Your task to perform on an android device: Go to settings Image 0: 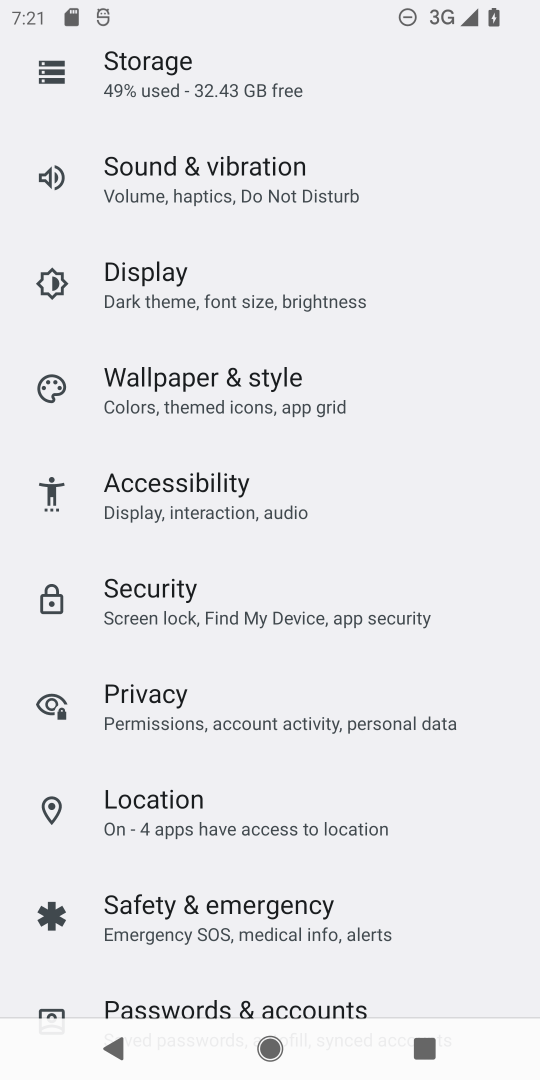
Step 0: drag from (231, 631) to (158, 140)
Your task to perform on an android device: Go to settings Image 1: 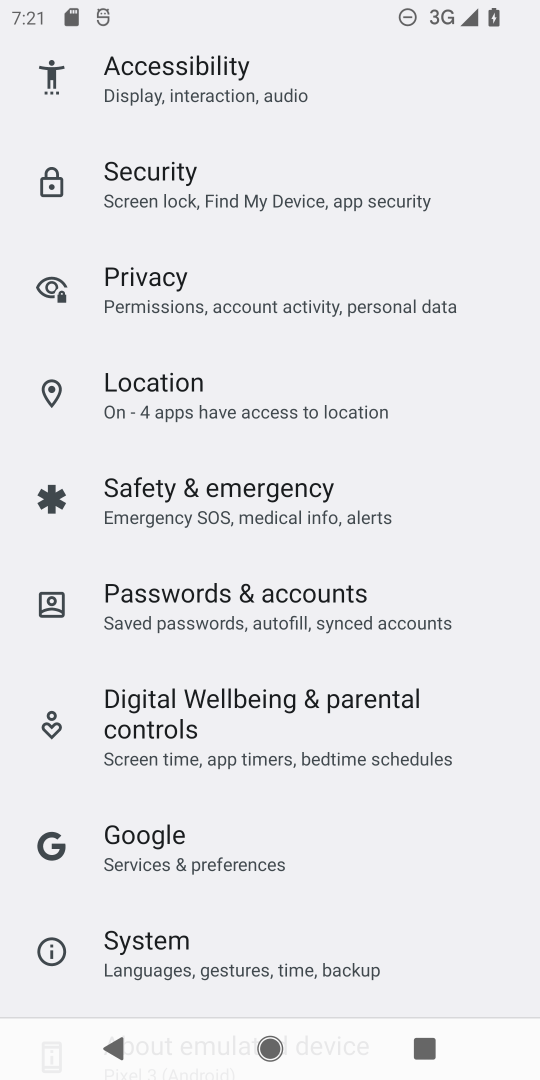
Step 1: task complete